Your task to perform on an android device: Open Reddit.com Image 0: 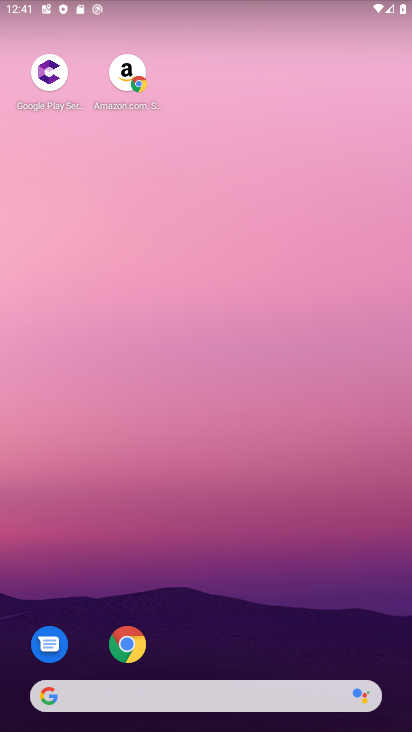
Step 0: click (133, 656)
Your task to perform on an android device: Open Reddit.com Image 1: 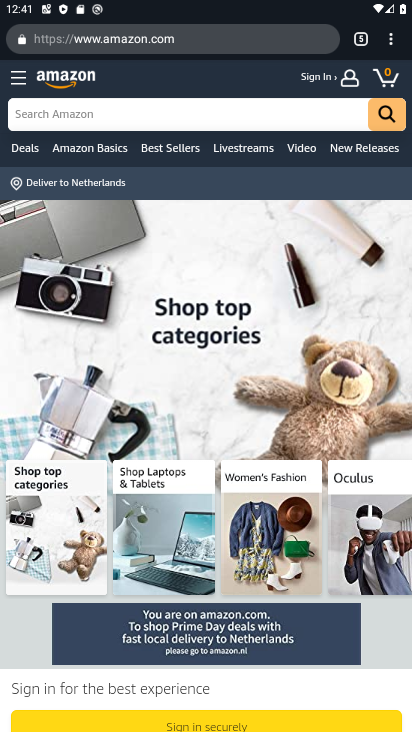
Step 1: click (362, 25)
Your task to perform on an android device: Open Reddit.com Image 2: 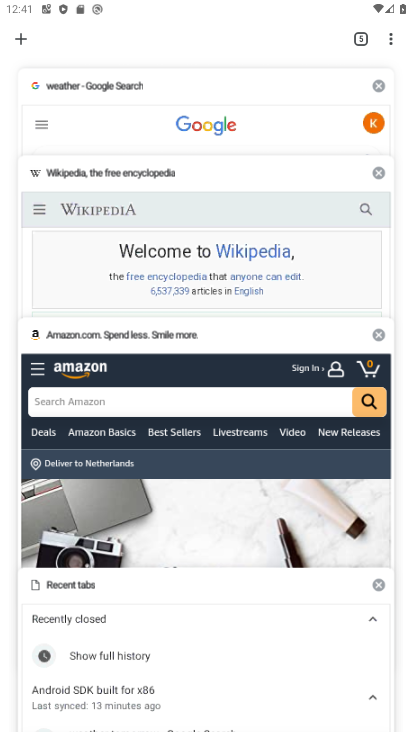
Step 2: click (17, 45)
Your task to perform on an android device: Open Reddit.com Image 3: 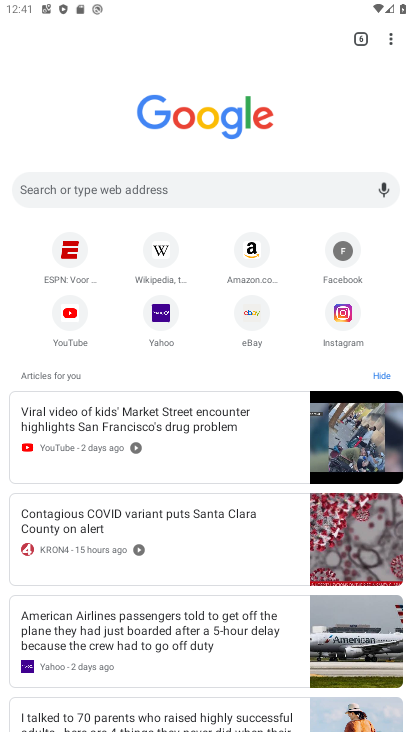
Step 3: click (169, 180)
Your task to perform on an android device: Open Reddit.com Image 4: 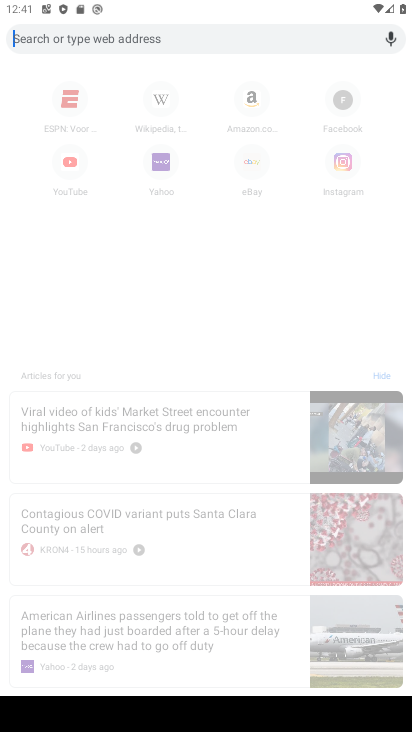
Step 4: type "reddit"
Your task to perform on an android device: Open Reddit.com Image 5: 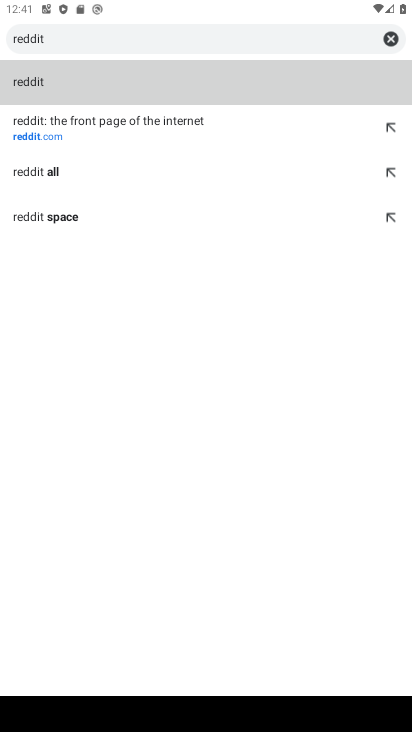
Step 5: click (47, 128)
Your task to perform on an android device: Open Reddit.com Image 6: 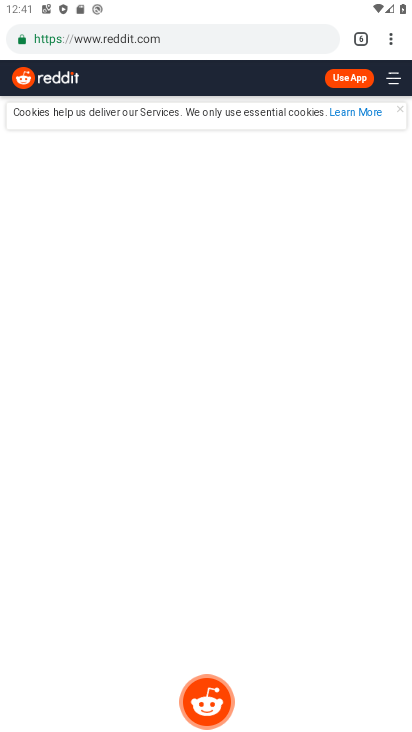
Step 6: task complete